Your task to perform on an android device: Open battery settings Image 0: 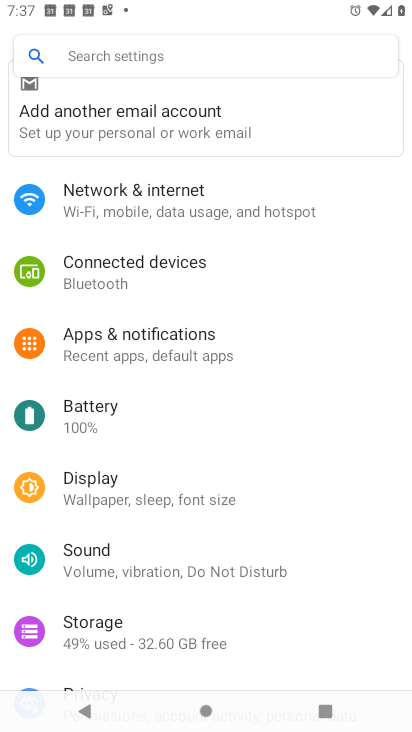
Step 0: press home button
Your task to perform on an android device: Open battery settings Image 1: 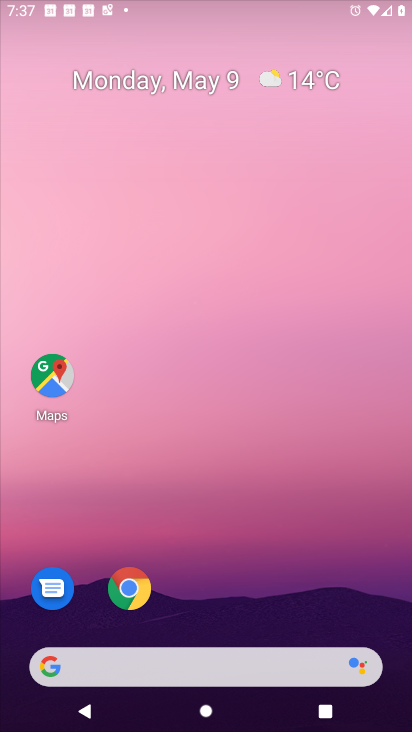
Step 1: drag from (345, 612) to (303, 43)
Your task to perform on an android device: Open battery settings Image 2: 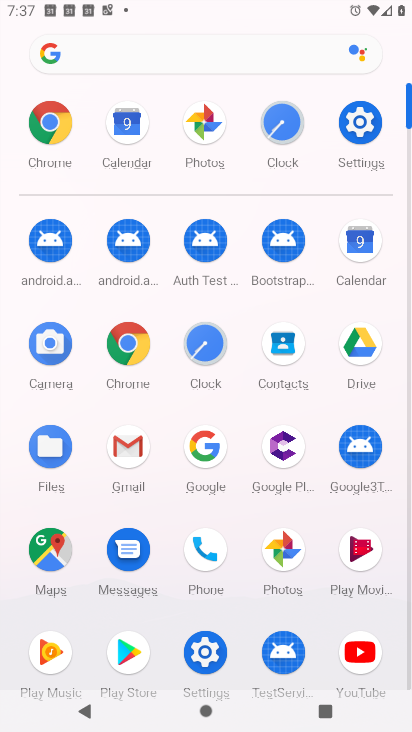
Step 2: click (198, 665)
Your task to perform on an android device: Open battery settings Image 3: 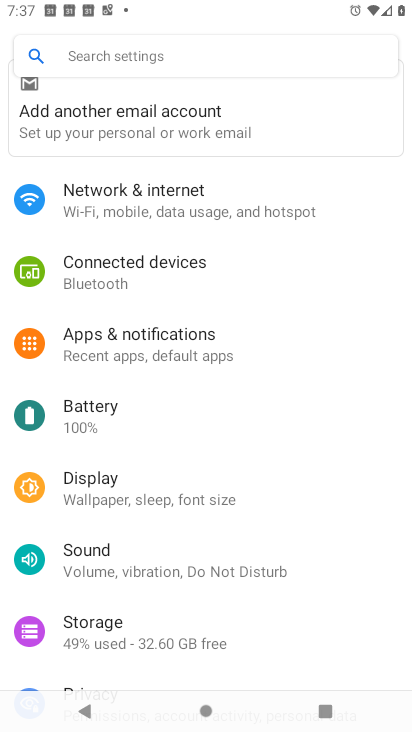
Step 3: click (151, 425)
Your task to perform on an android device: Open battery settings Image 4: 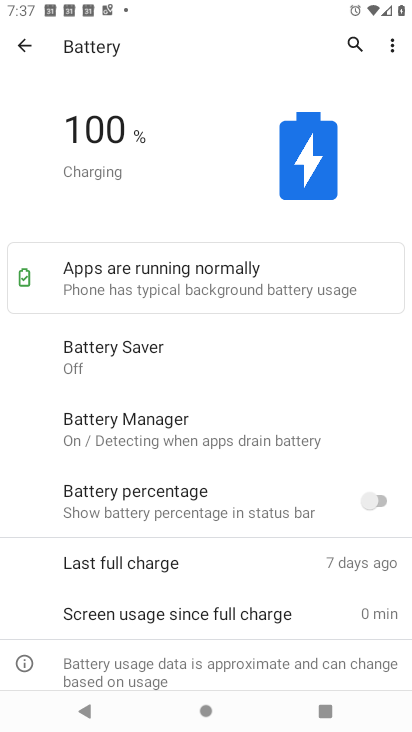
Step 4: task complete